Your task to perform on an android device: Search for dell xps on amazon, select the first entry, and add it to the cart. Image 0: 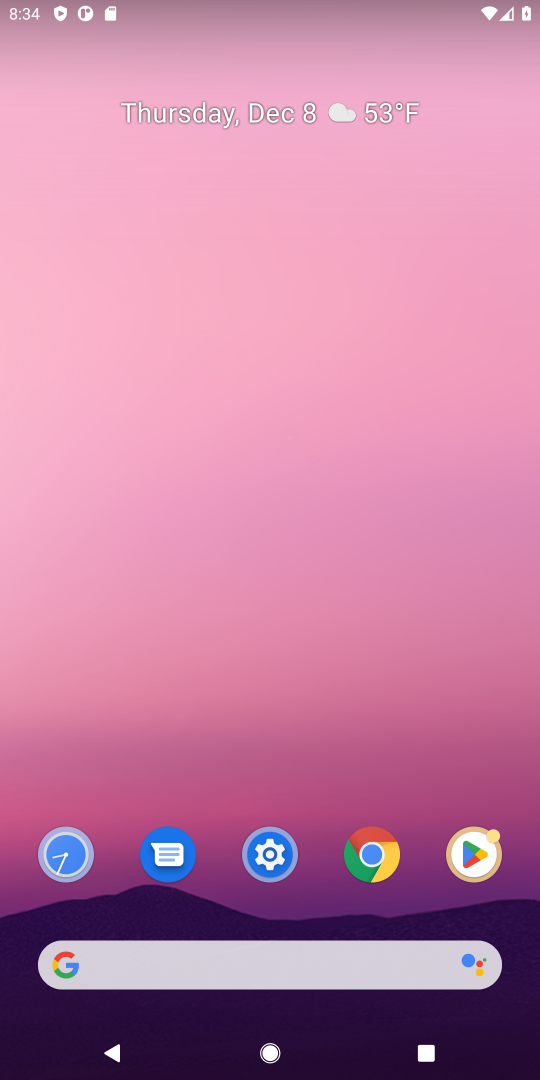
Step 0: press home button
Your task to perform on an android device: Search for dell xps on amazon, select the first entry, and add it to the cart. Image 1: 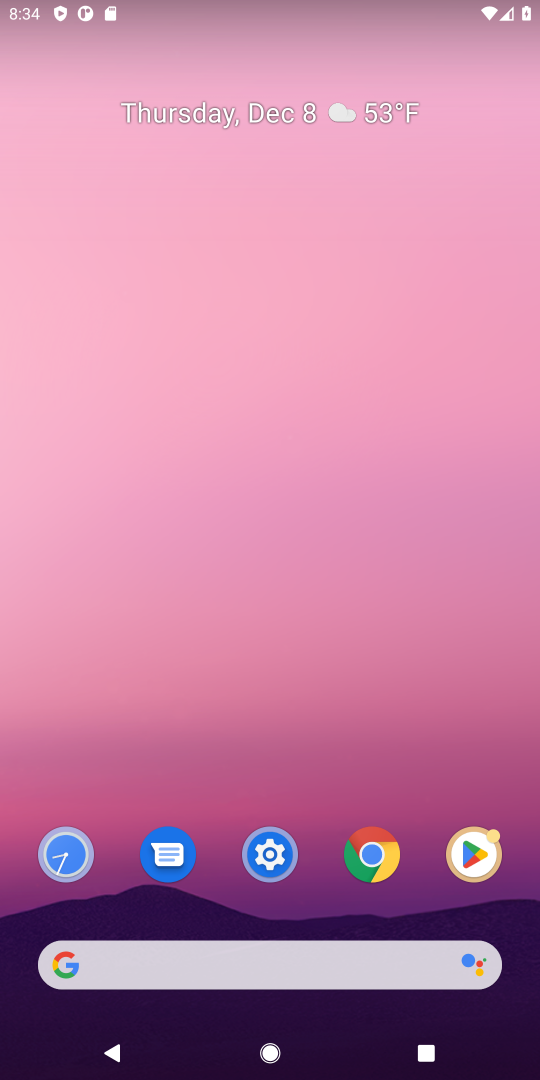
Step 1: click (92, 957)
Your task to perform on an android device: Search for dell xps on amazon, select the first entry, and add it to the cart. Image 2: 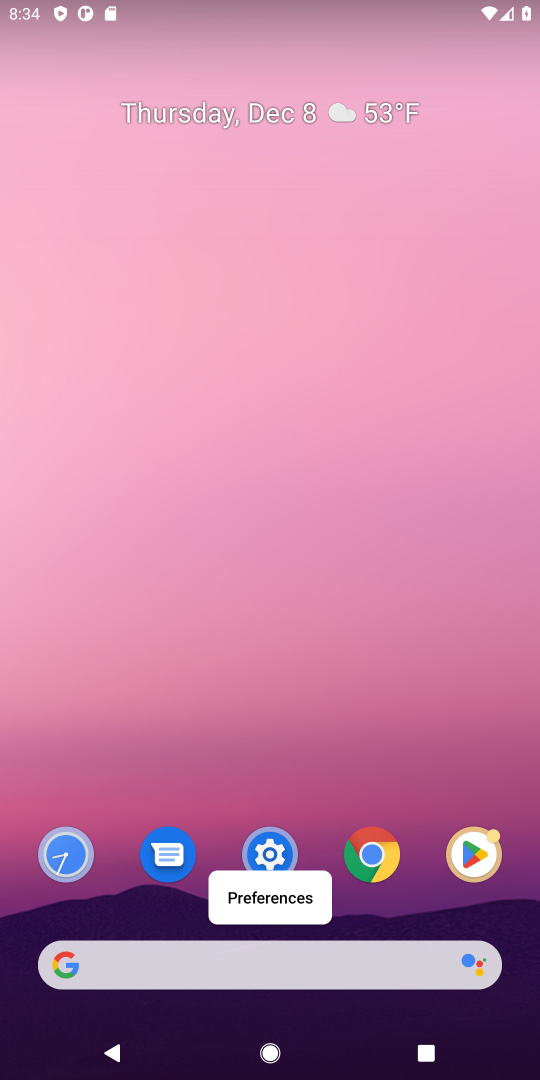
Step 2: click (90, 969)
Your task to perform on an android device: Search for dell xps on amazon, select the first entry, and add it to the cart. Image 3: 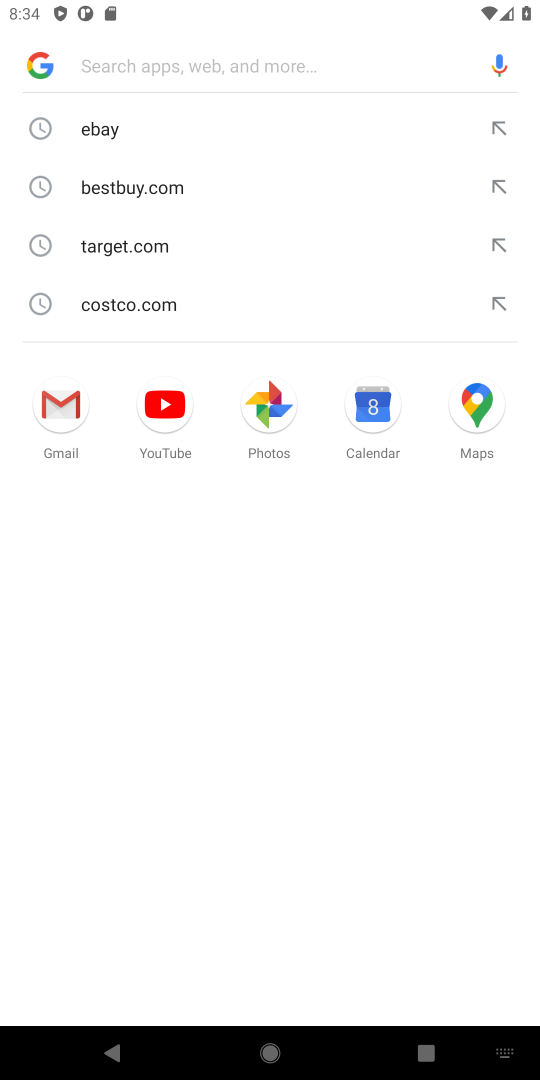
Step 3: type "amazon"
Your task to perform on an android device: Search for dell xps on amazon, select the first entry, and add it to the cart. Image 4: 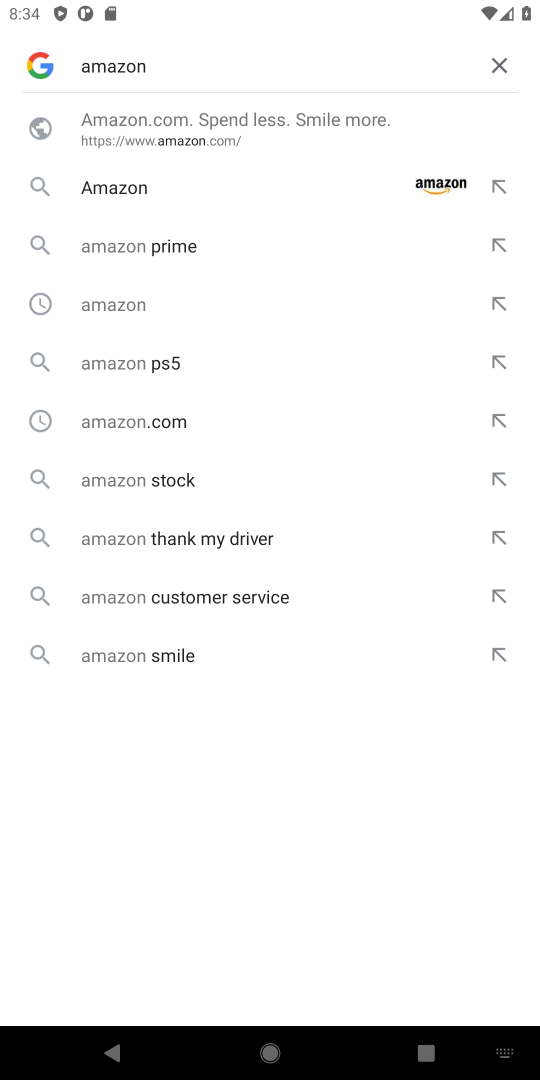
Step 4: press enter
Your task to perform on an android device: Search for dell xps on amazon, select the first entry, and add it to the cart. Image 5: 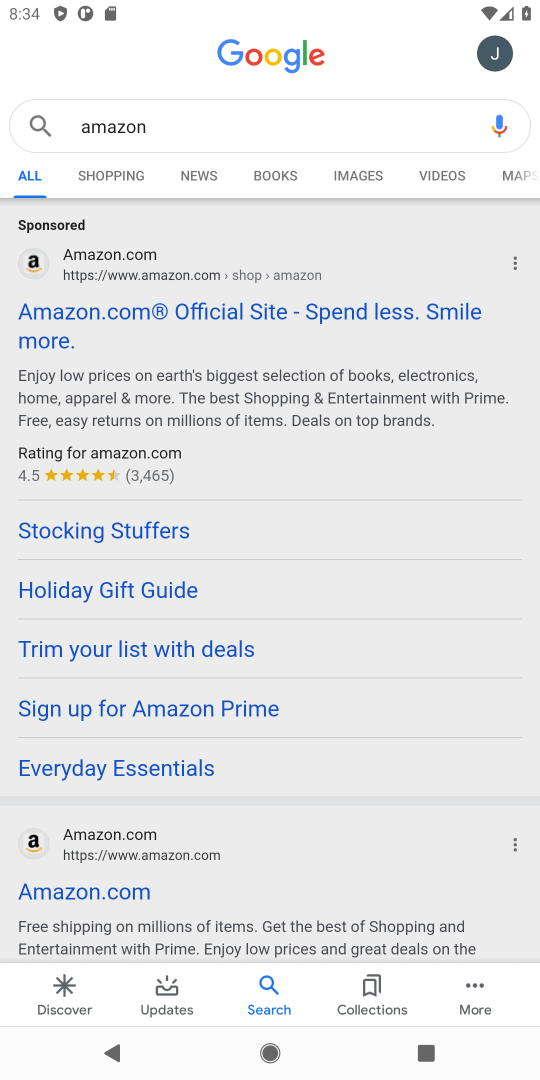
Step 5: click (158, 315)
Your task to perform on an android device: Search for dell xps on amazon, select the first entry, and add it to the cart. Image 6: 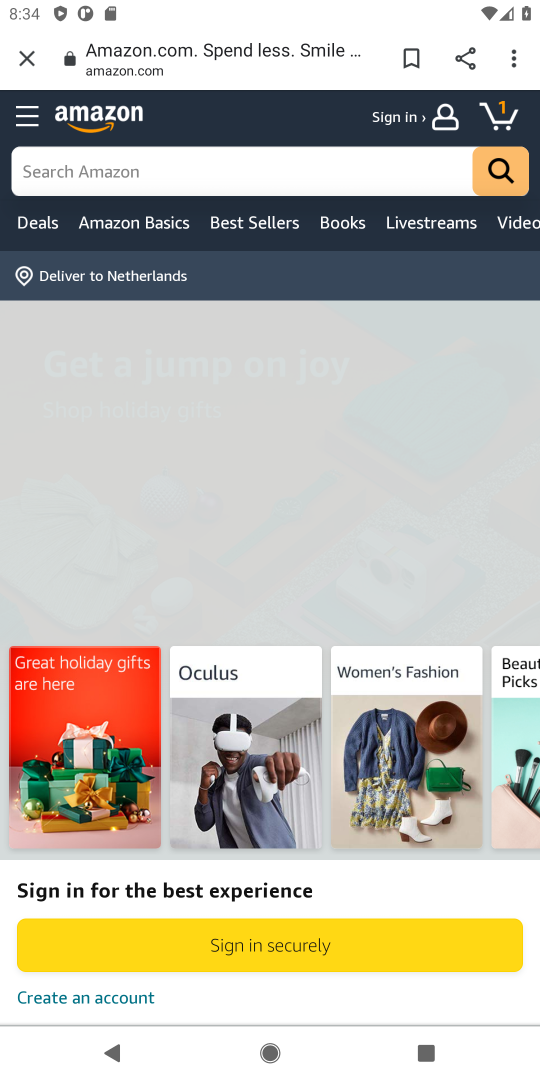
Step 6: click (108, 166)
Your task to perform on an android device: Search for dell xps on amazon, select the first entry, and add it to the cart. Image 7: 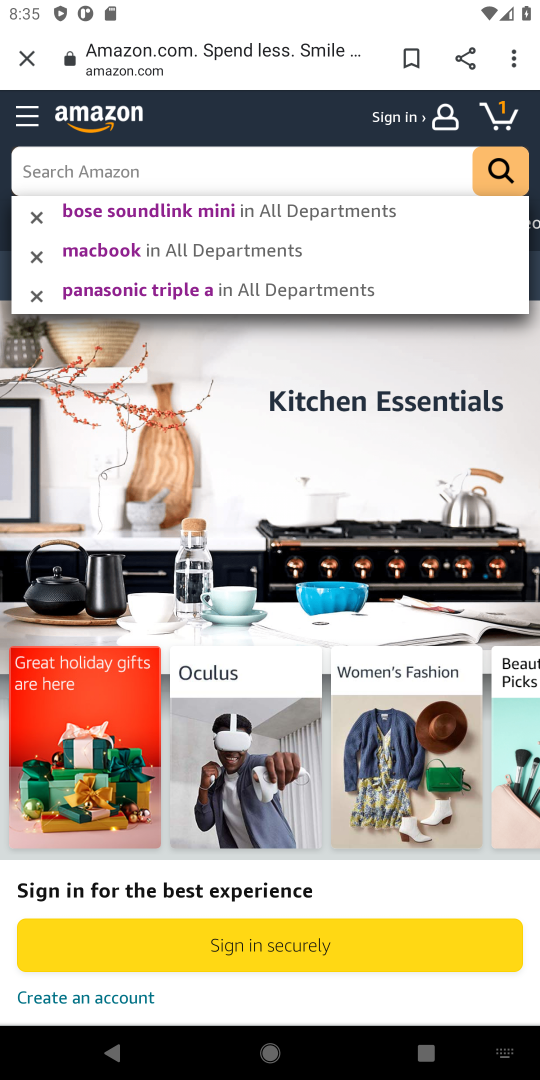
Step 7: type "dell xps"
Your task to perform on an android device: Search for dell xps on amazon, select the first entry, and add it to the cart. Image 8: 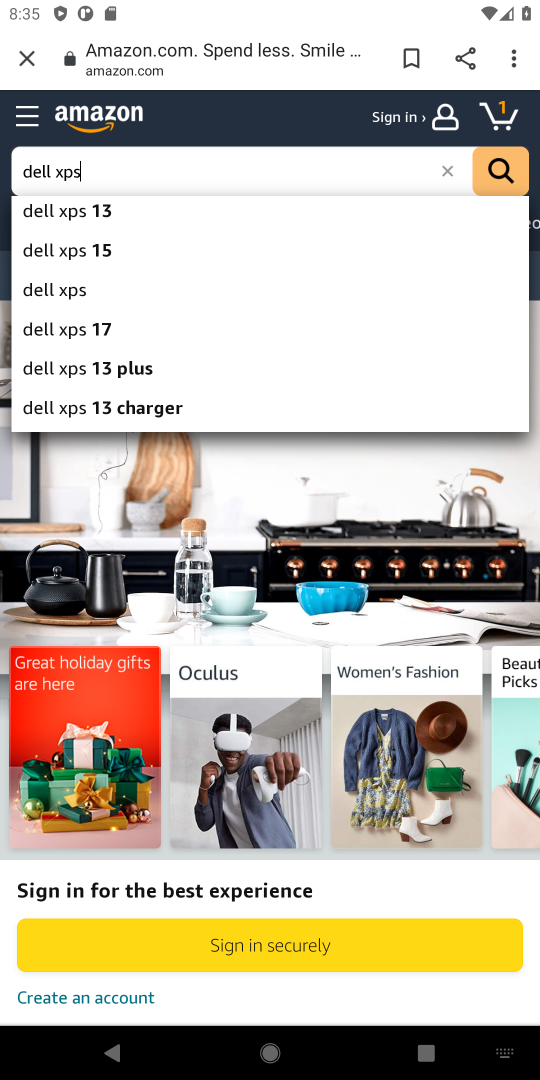
Step 8: press enter
Your task to perform on an android device: Search for dell xps on amazon, select the first entry, and add it to the cart. Image 9: 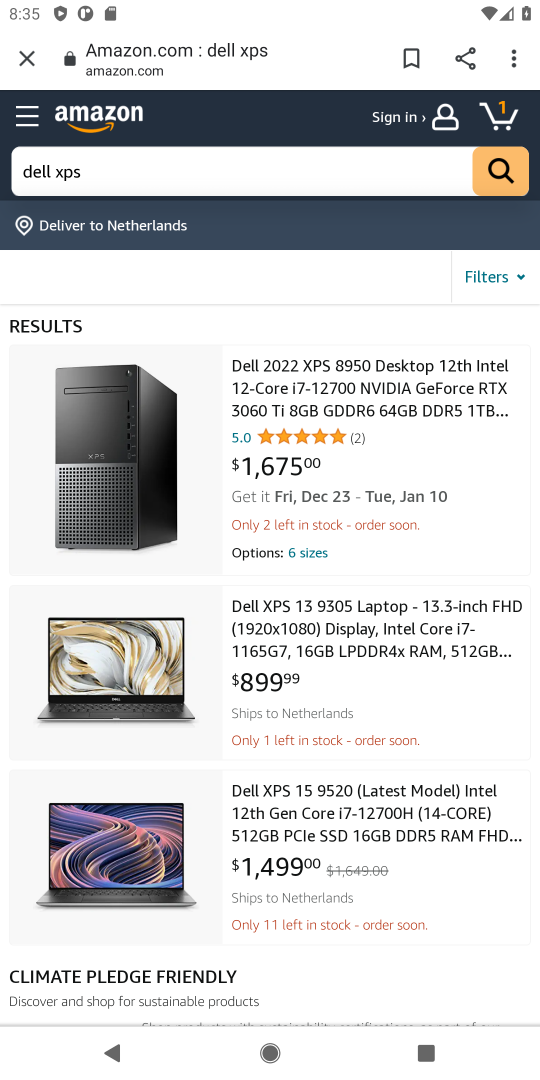
Step 9: click (308, 380)
Your task to perform on an android device: Search for dell xps on amazon, select the first entry, and add it to the cart. Image 10: 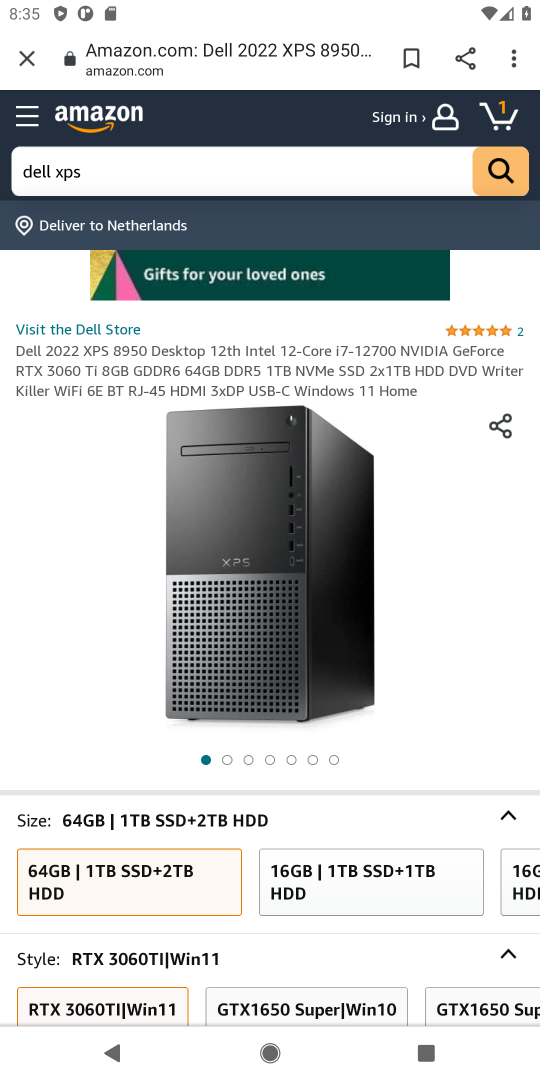
Step 10: drag from (369, 861) to (376, 382)
Your task to perform on an android device: Search for dell xps on amazon, select the first entry, and add it to the cart. Image 11: 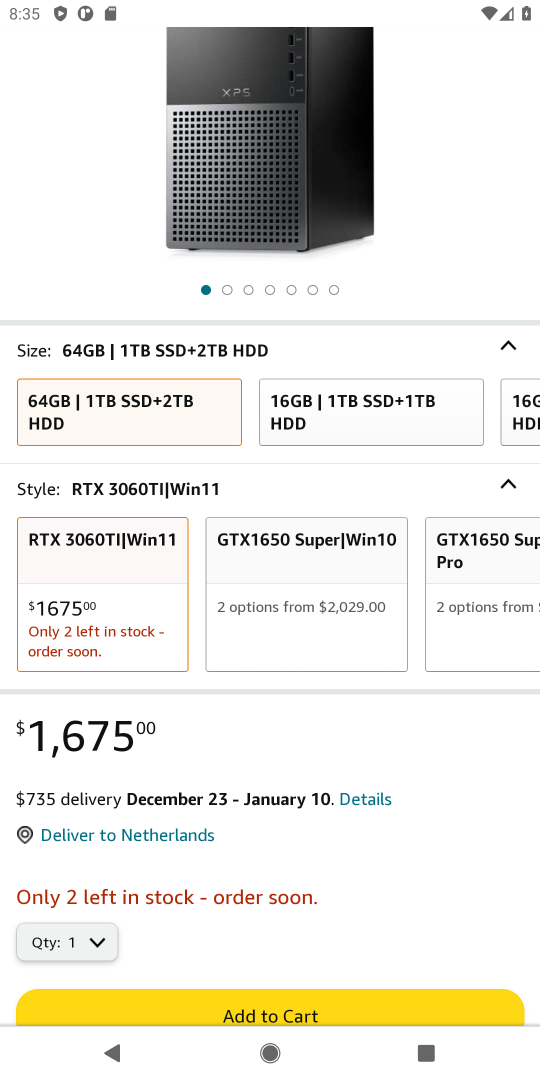
Step 11: drag from (344, 906) to (367, 382)
Your task to perform on an android device: Search for dell xps on amazon, select the first entry, and add it to the cart. Image 12: 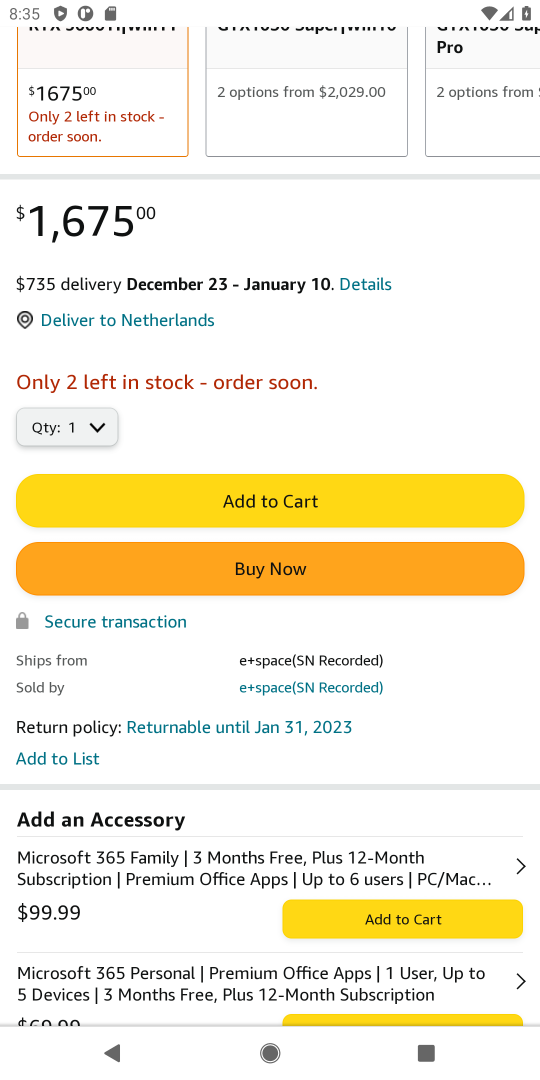
Step 12: click (254, 504)
Your task to perform on an android device: Search for dell xps on amazon, select the first entry, and add it to the cart. Image 13: 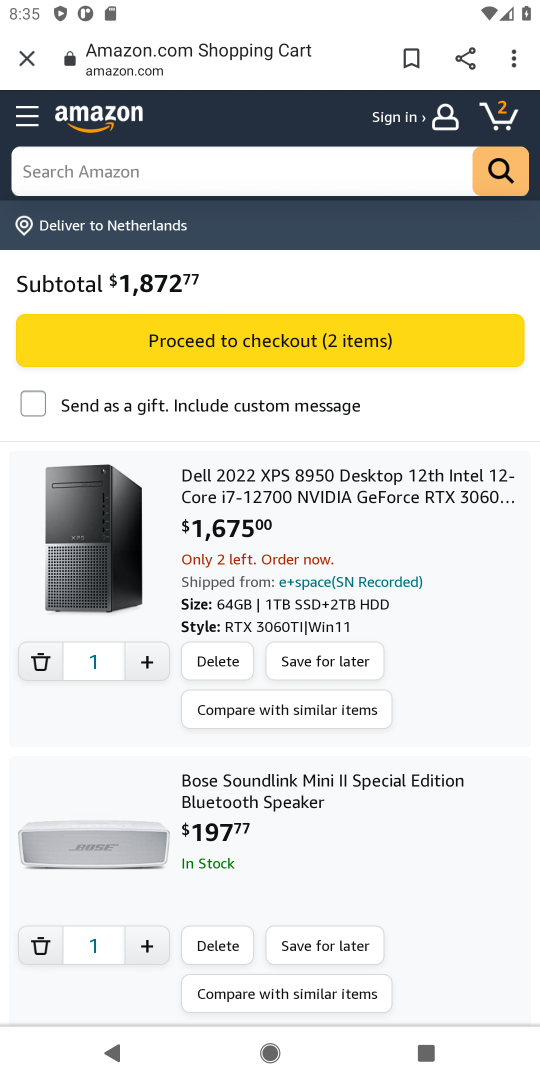
Step 13: task complete